Your task to perform on an android device: Open Chrome and go to settings Image 0: 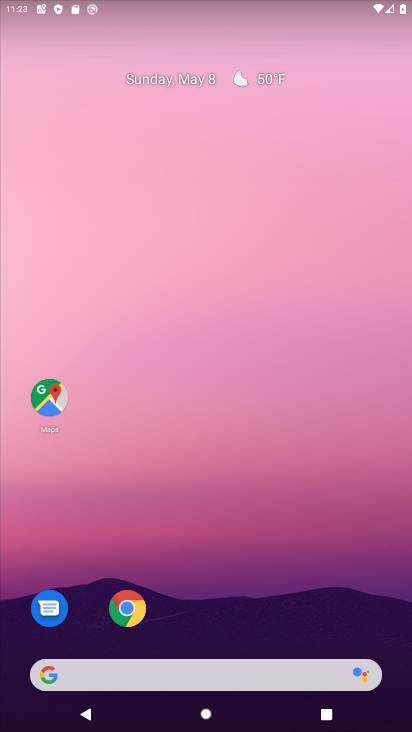
Step 0: drag from (285, 548) to (409, 447)
Your task to perform on an android device: Open Chrome and go to settings Image 1: 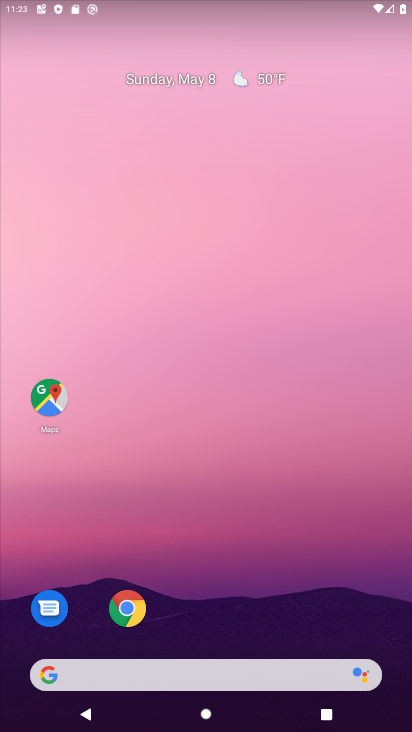
Step 1: drag from (312, 589) to (287, 228)
Your task to perform on an android device: Open Chrome and go to settings Image 2: 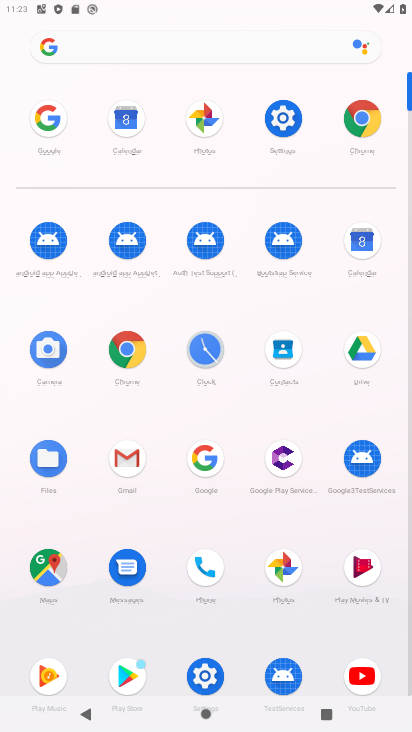
Step 2: click (352, 130)
Your task to perform on an android device: Open Chrome and go to settings Image 3: 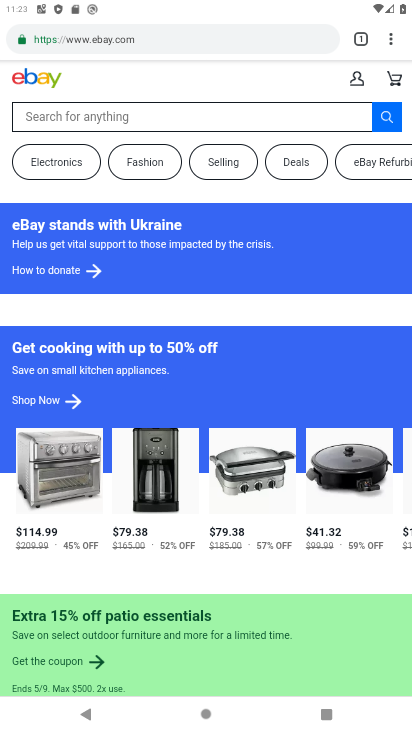
Step 3: task complete